Your task to perform on an android device: Open the stopwatch Image 0: 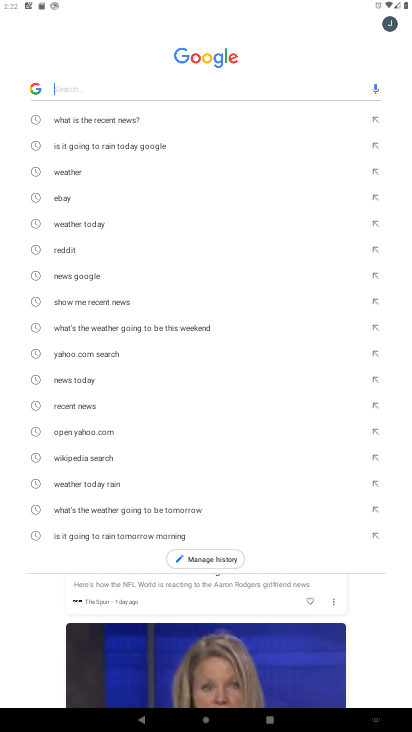
Step 0: press home button
Your task to perform on an android device: Open the stopwatch Image 1: 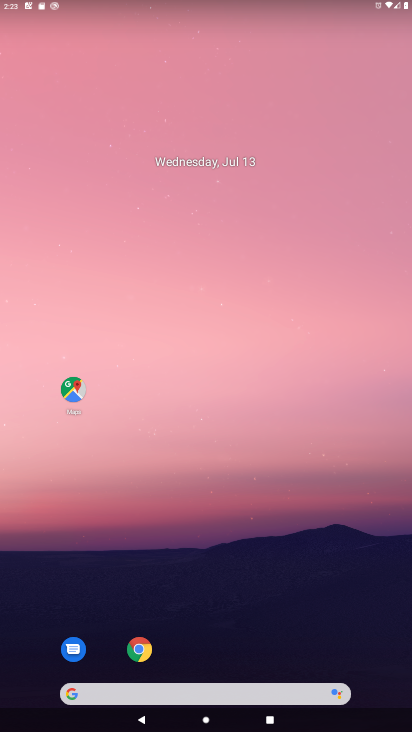
Step 1: drag from (186, 628) to (156, 99)
Your task to perform on an android device: Open the stopwatch Image 2: 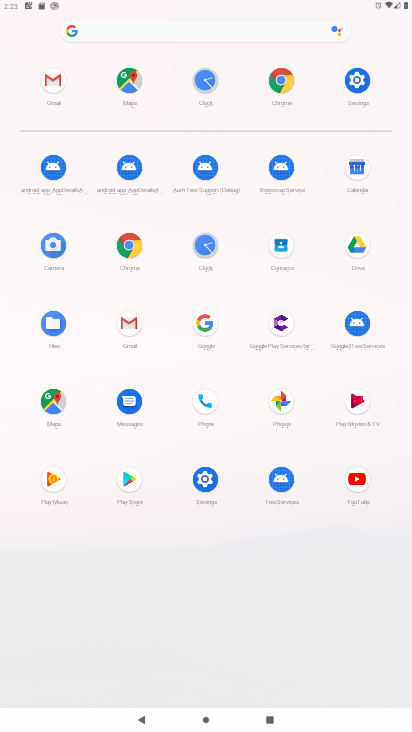
Step 2: click (196, 226)
Your task to perform on an android device: Open the stopwatch Image 3: 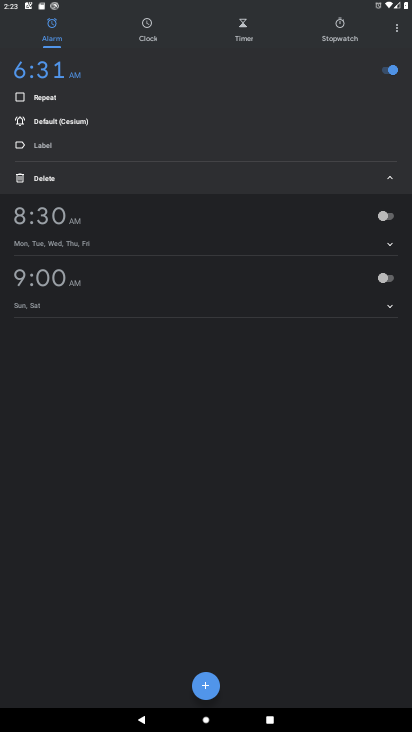
Step 3: click (333, 24)
Your task to perform on an android device: Open the stopwatch Image 4: 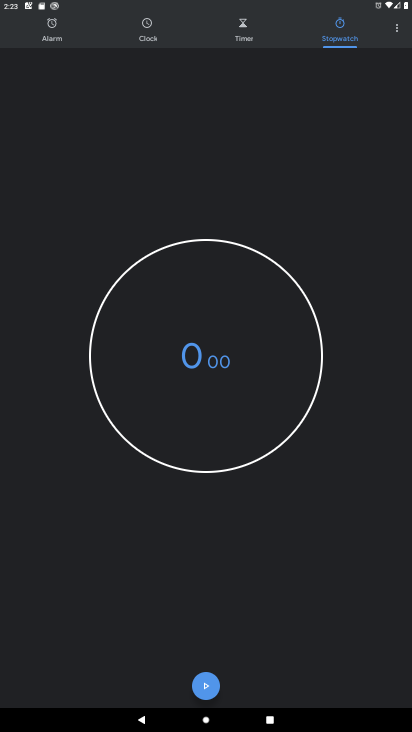
Step 4: click (211, 677)
Your task to perform on an android device: Open the stopwatch Image 5: 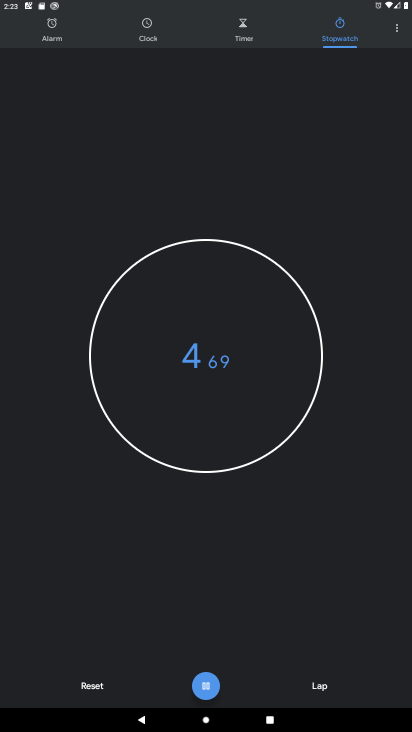
Step 5: task complete